Your task to perform on an android device: turn on javascript in the chrome app Image 0: 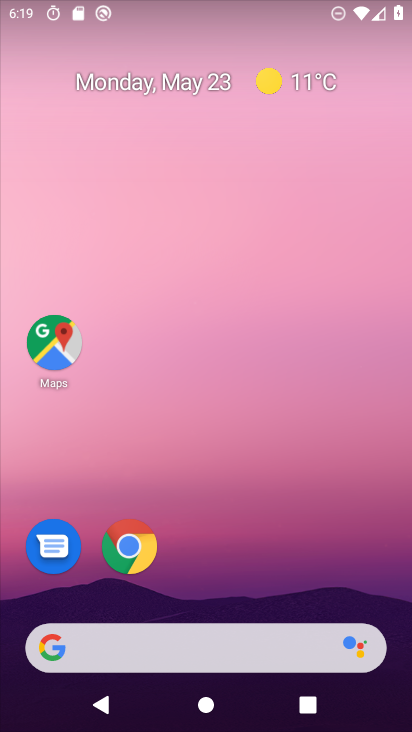
Step 0: click (139, 543)
Your task to perform on an android device: turn on javascript in the chrome app Image 1: 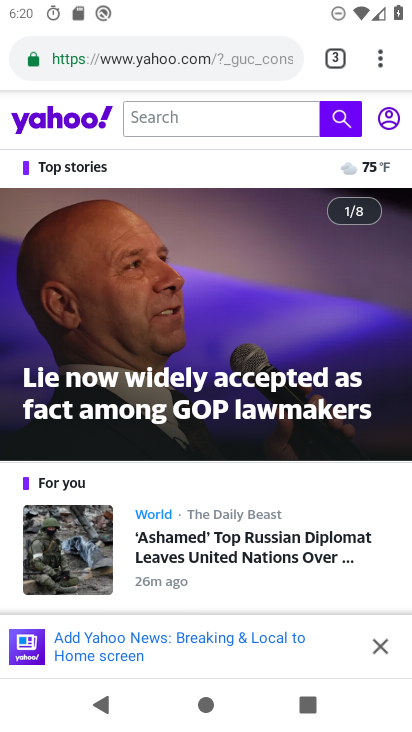
Step 1: click (386, 65)
Your task to perform on an android device: turn on javascript in the chrome app Image 2: 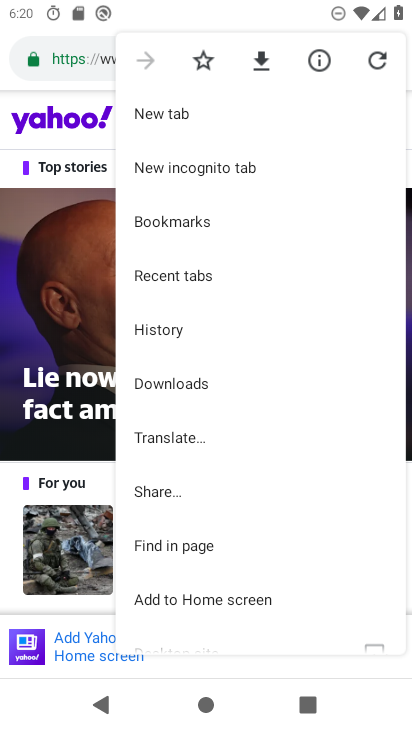
Step 2: drag from (216, 526) to (234, 277)
Your task to perform on an android device: turn on javascript in the chrome app Image 3: 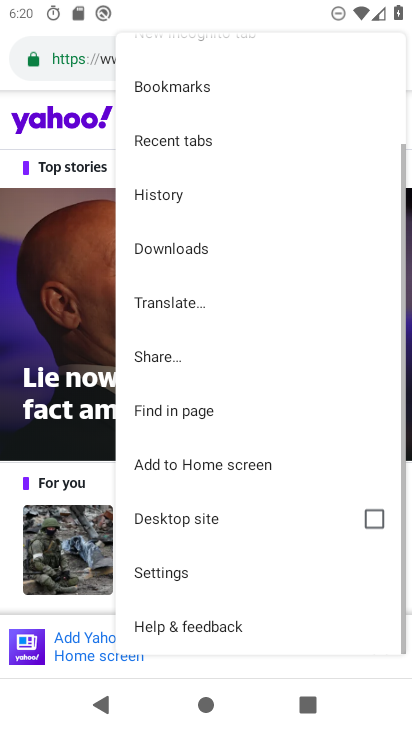
Step 3: click (165, 576)
Your task to perform on an android device: turn on javascript in the chrome app Image 4: 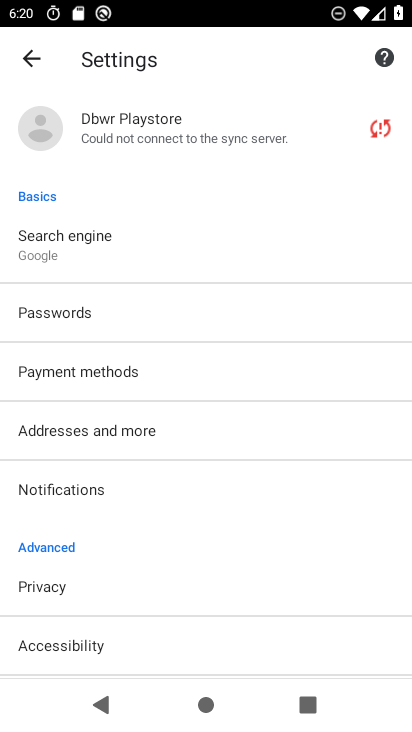
Step 4: drag from (241, 566) to (228, 411)
Your task to perform on an android device: turn on javascript in the chrome app Image 5: 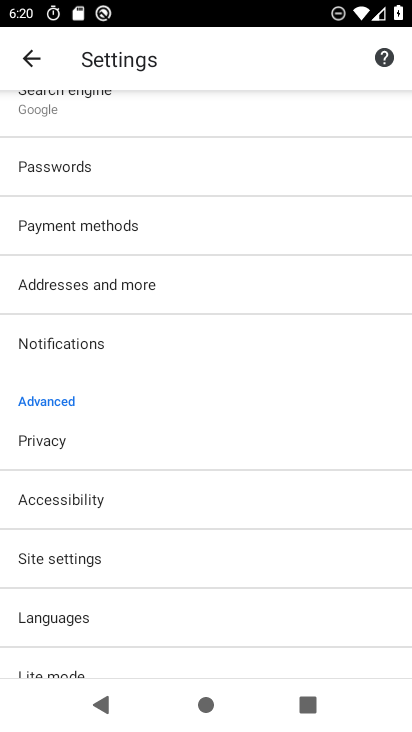
Step 5: click (133, 562)
Your task to perform on an android device: turn on javascript in the chrome app Image 6: 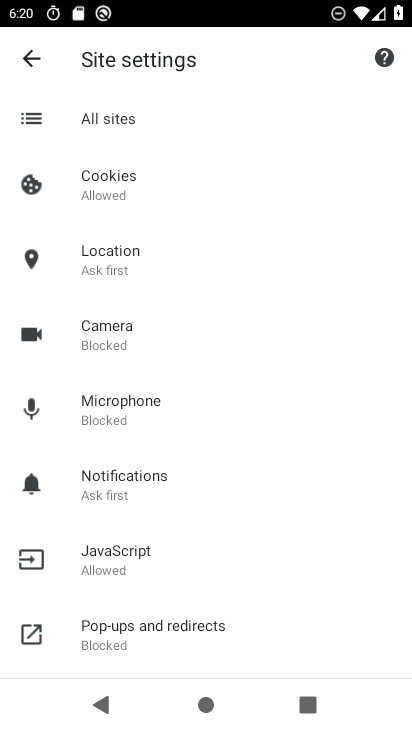
Step 6: click (151, 566)
Your task to perform on an android device: turn on javascript in the chrome app Image 7: 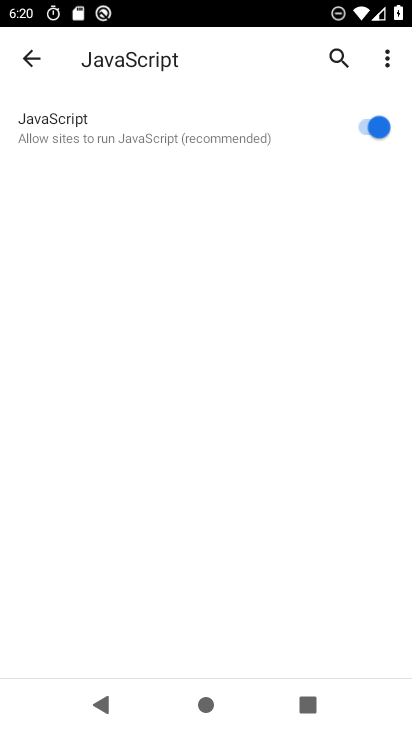
Step 7: task complete